Your task to perform on an android device: Set the phone to "Do not disturb". Image 0: 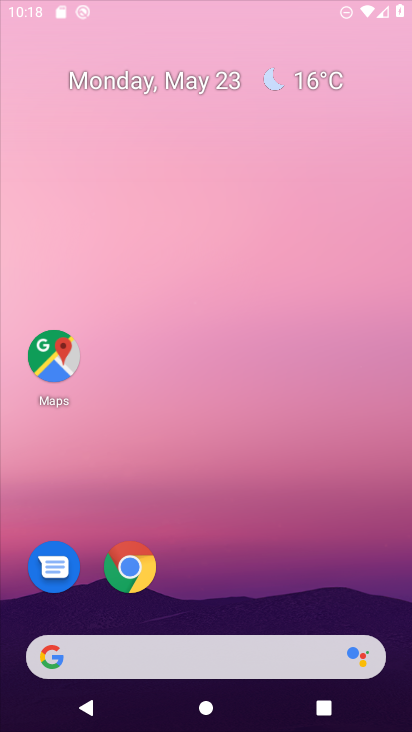
Step 0: click (242, 101)
Your task to perform on an android device: Set the phone to "Do not disturb". Image 1: 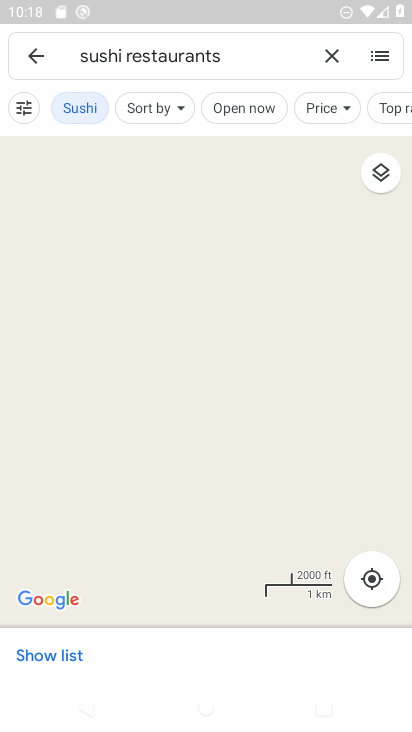
Step 1: drag from (231, 532) to (300, 84)
Your task to perform on an android device: Set the phone to "Do not disturb". Image 2: 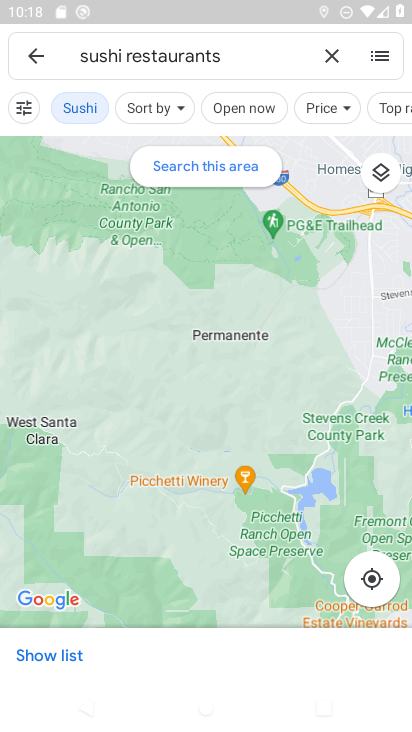
Step 2: drag from (154, 214) to (192, 26)
Your task to perform on an android device: Set the phone to "Do not disturb". Image 3: 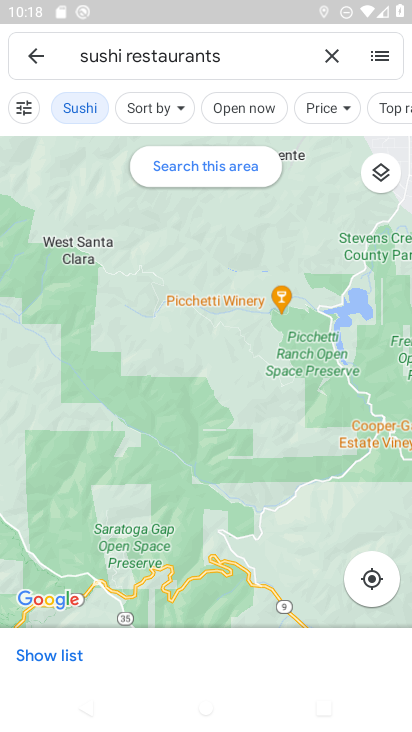
Step 3: press home button
Your task to perform on an android device: Set the phone to "Do not disturb". Image 4: 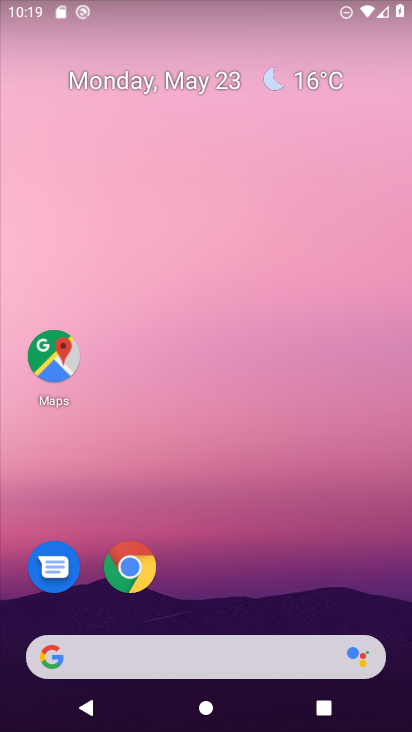
Step 4: drag from (193, 598) to (267, 46)
Your task to perform on an android device: Set the phone to "Do not disturb". Image 5: 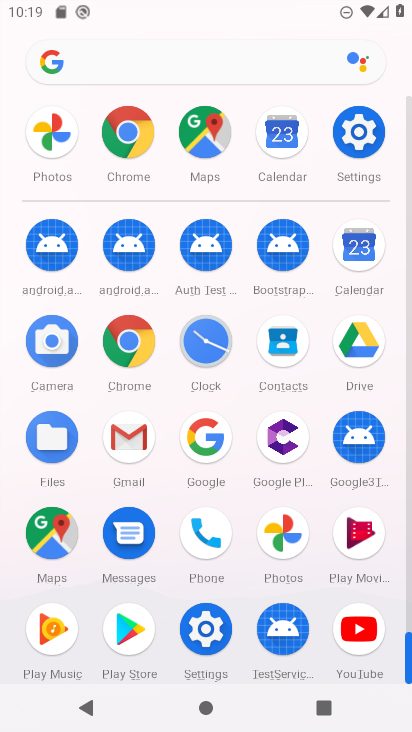
Step 5: click (368, 129)
Your task to perform on an android device: Set the phone to "Do not disturb". Image 6: 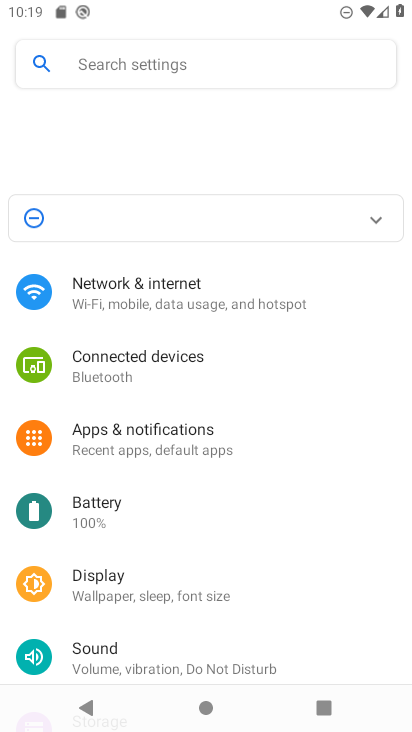
Step 6: drag from (191, 568) to (265, 149)
Your task to perform on an android device: Set the phone to "Do not disturb". Image 7: 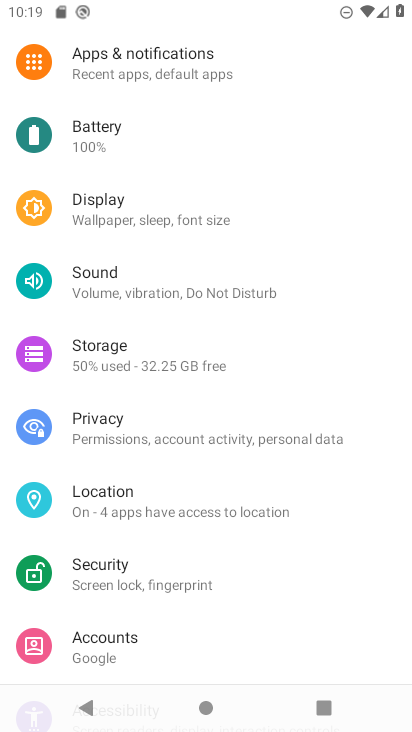
Step 7: drag from (193, 615) to (246, 290)
Your task to perform on an android device: Set the phone to "Do not disturb". Image 8: 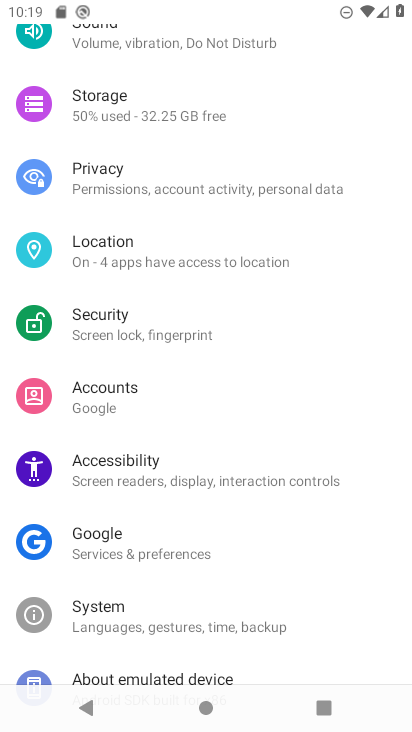
Step 8: drag from (283, 176) to (286, 633)
Your task to perform on an android device: Set the phone to "Do not disturb". Image 9: 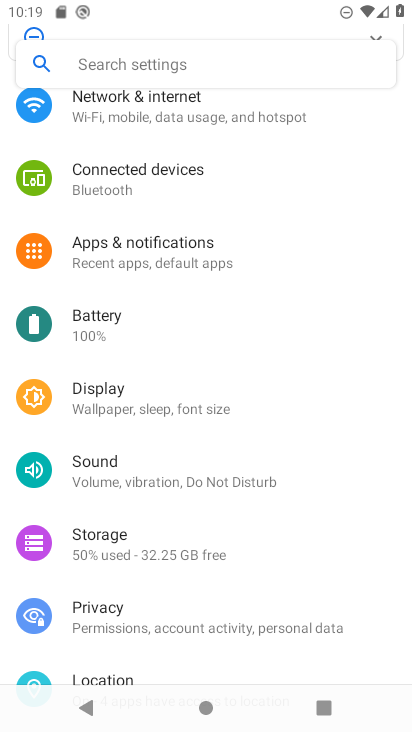
Step 9: click (148, 245)
Your task to perform on an android device: Set the phone to "Do not disturb". Image 10: 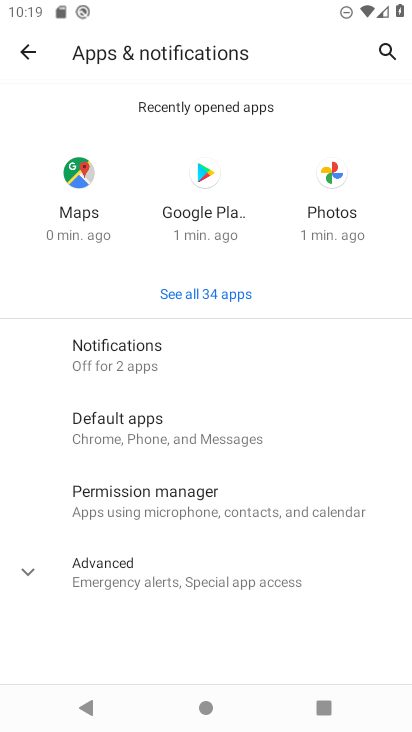
Step 10: drag from (188, 535) to (268, 275)
Your task to perform on an android device: Set the phone to "Do not disturb". Image 11: 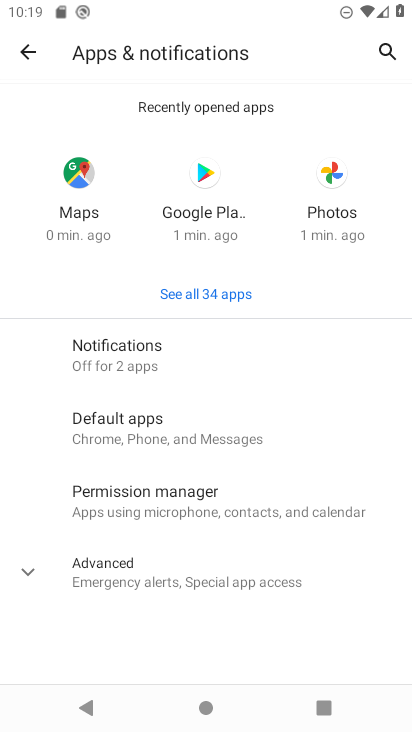
Step 11: click (159, 338)
Your task to perform on an android device: Set the phone to "Do not disturb". Image 12: 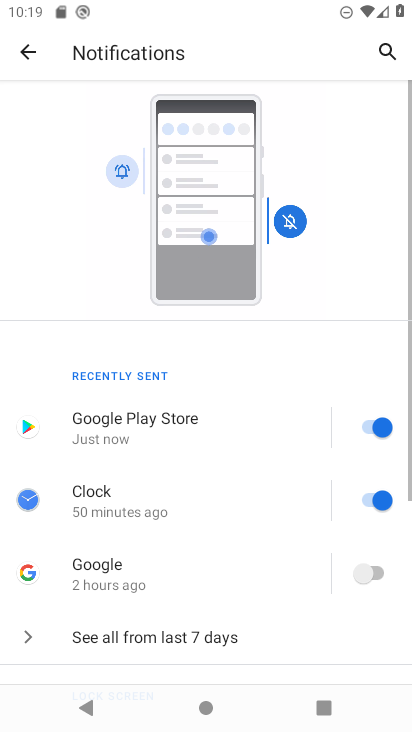
Step 12: drag from (241, 608) to (364, 57)
Your task to perform on an android device: Set the phone to "Do not disturb". Image 13: 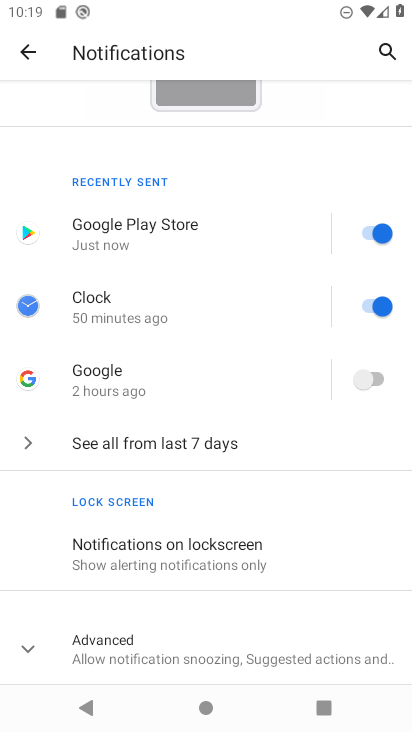
Step 13: drag from (199, 557) to (253, 292)
Your task to perform on an android device: Set the phone to "Do not disturb". Image 14: 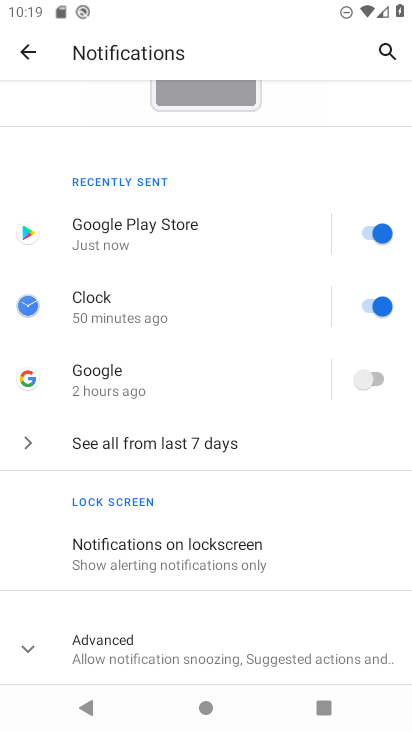
Step 14: click (112, 641)
Your task to perform on an android device: Set the phone to "Do not disturb". Image 15: 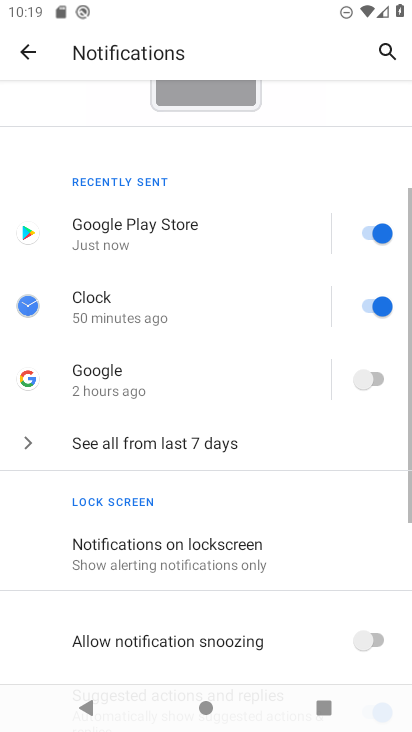
Step 15: drag from (177, 628) to (267, 317)
Your task to perform on an android device: Set the phone to "Do not disturb". Image 16: 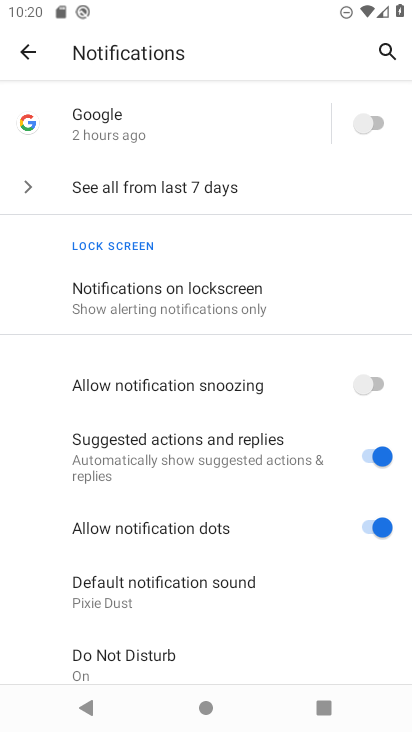
Step 16: click (142, 656)
Your task to perform on an android device: Set the phone to "Do not disturb". Image 17: 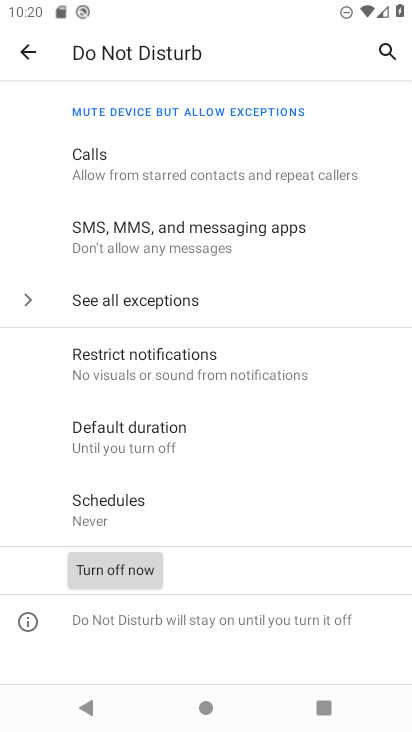
Step 17: click (131, 564)
Your task to perform on an android device: Set the phone to "Do not disturb". Image 18: 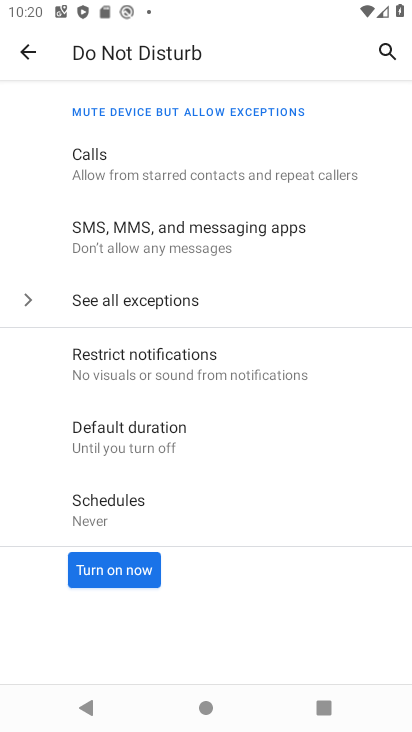
Step 18: task complete